Your task to perform on an android device: When is my next appointment? Image 0: 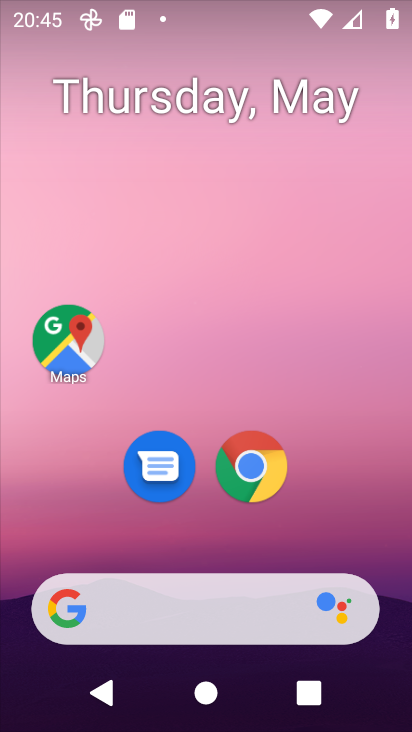
Step 0: task complete